Your task to perform on an android device: Open my contact list Image 0: 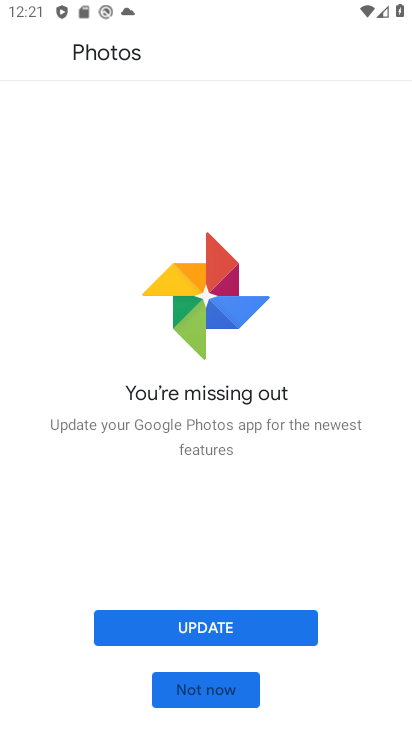
Step 0: press back button
Your task to perform on an android device: Open my contact list Image 1: 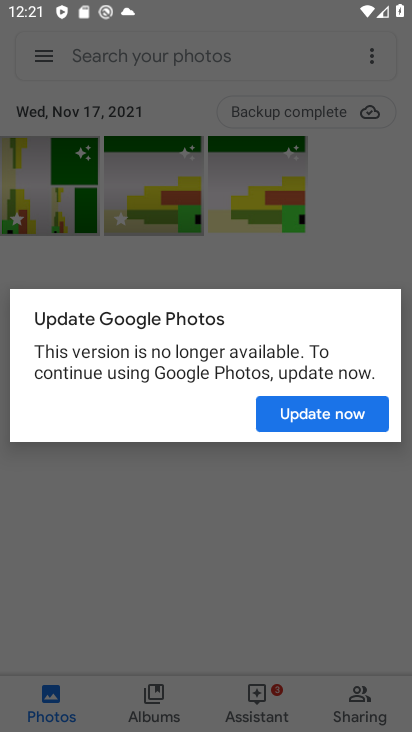
Step 1: press home button
Your task to perform on an android device: Open my contact list Image 2: 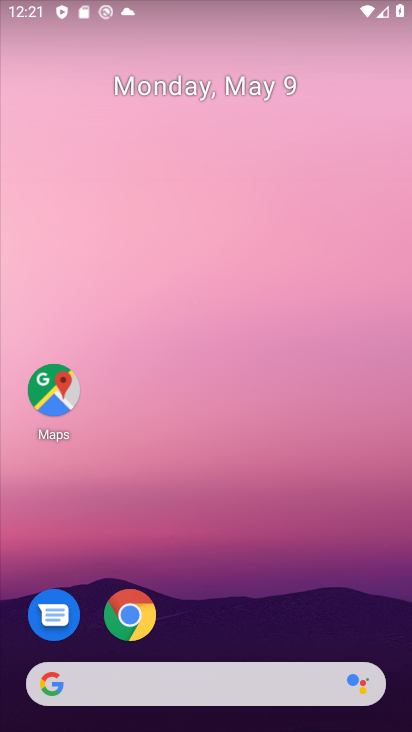
Step 2: drag from (211, 599) to (173, 148)
Your task to perform on an android device: Open my contact list Image 3: 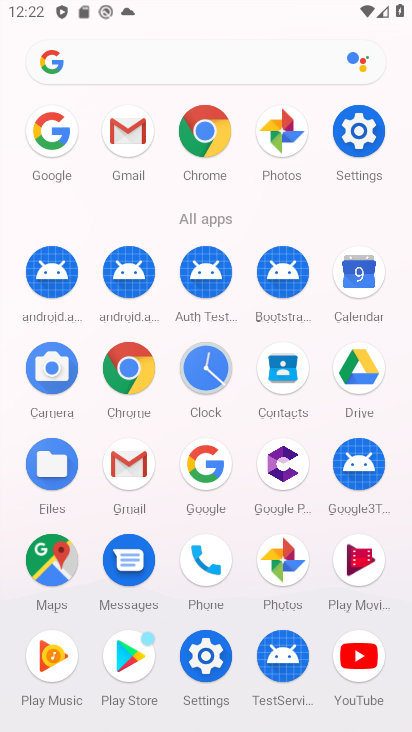
Step 3: click (282, 371)
Your task to perform on an android device: Open my contact list Image 4: 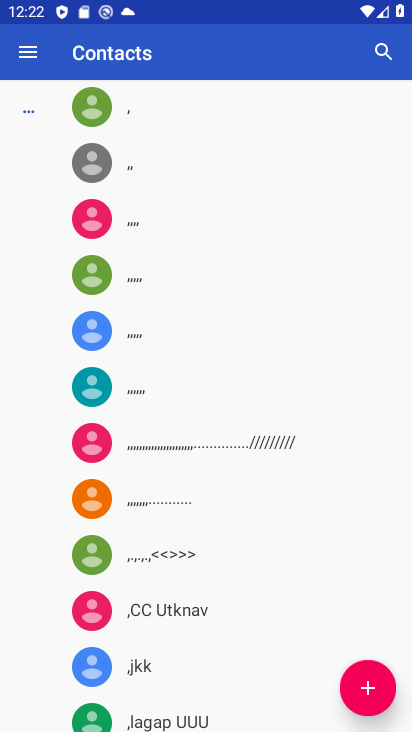
Step 4: task complete